Your task to perform on an android device: Go to sound settings Image 0: 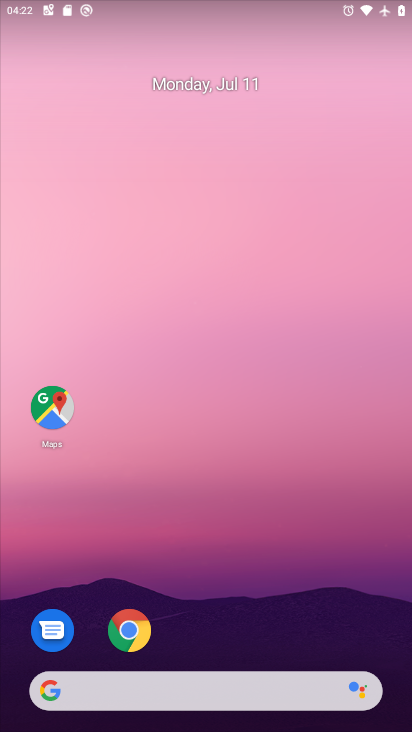
Step 0: drag from (259, 657) to (298, 231)
Your task to perform on an android device: Go to sound settings Image 1: 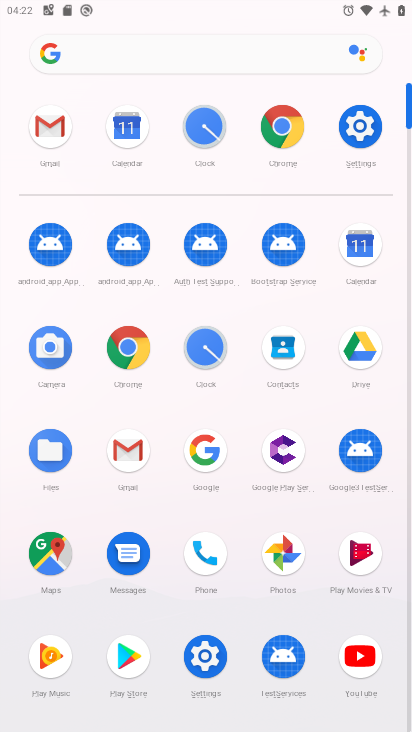
Step 1: click (352, 159)
Your task to perform on an android device: Go to sound settings Image 2: 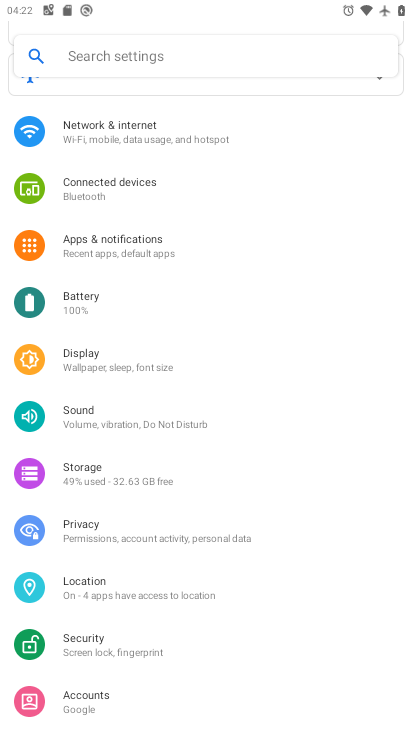
Step 2: click (139, 403)
Your task to perform on an android device: Go to sound settings Image 3: 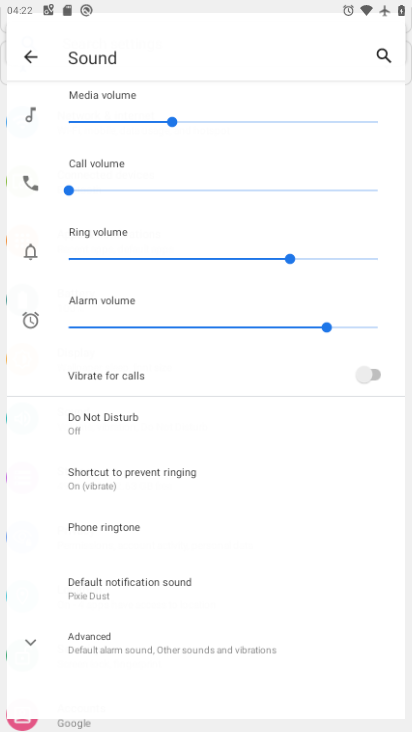
Step 3: task complete